Your task to perform on an android device: open a new tab in the chrome app Image 0: 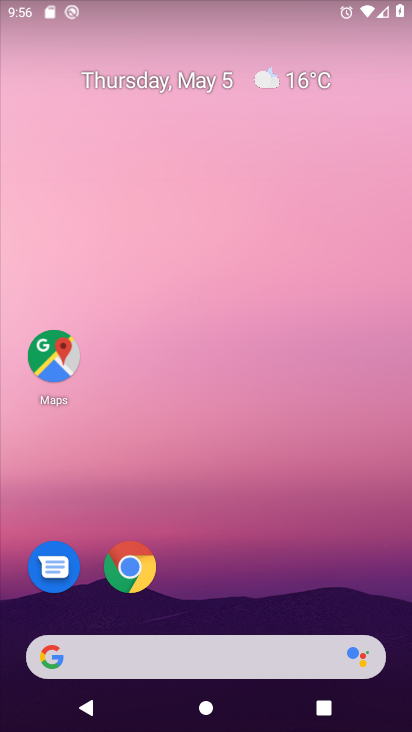
Step 0: drag from (259, 581) to (224, 23)
Your task to perform on an android device: open a new tab in the chrome app Image 1: 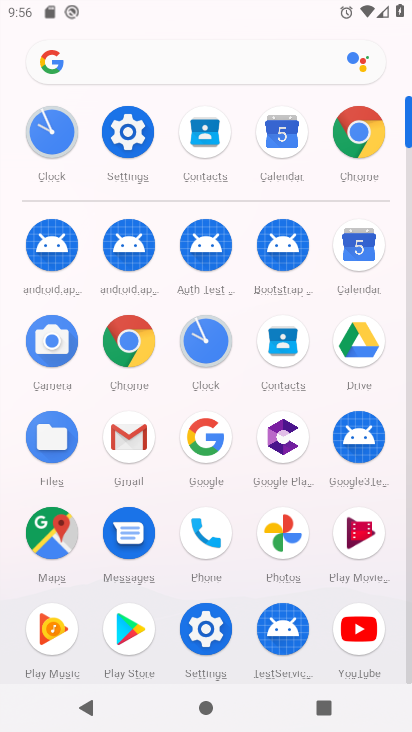
Step 1: click (349, 133)
Your task to perform on an android device: open a new tab in the chrome app Image 2: 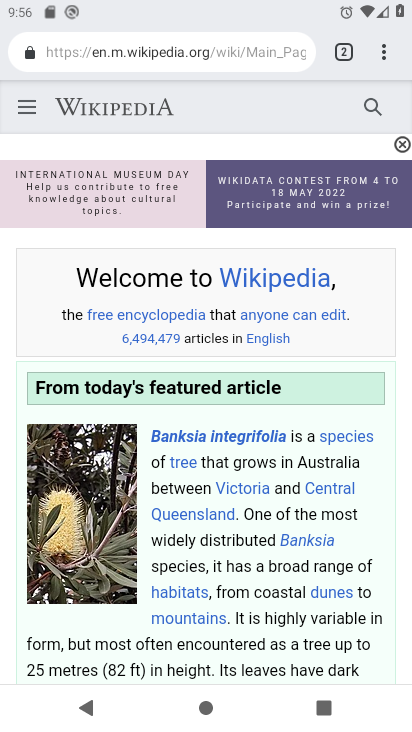
Step 2: click (379, 42)
Your task to perform on an android device: open a new tab in the chrome app Image 3: 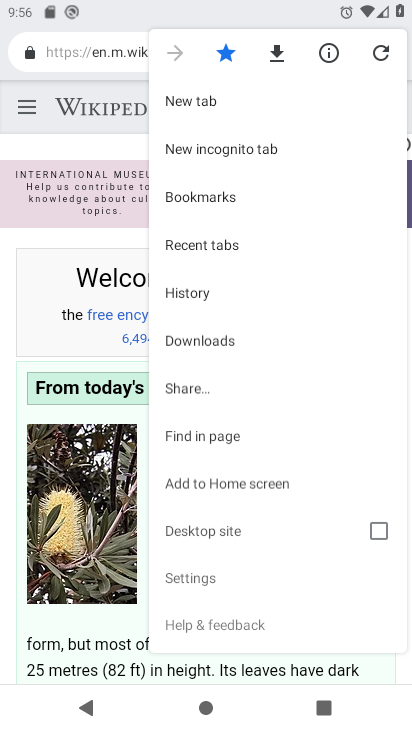
Step 3: click (382, 50)
Your task to perform on an android device: open a new tab in the chrome app Image 4: 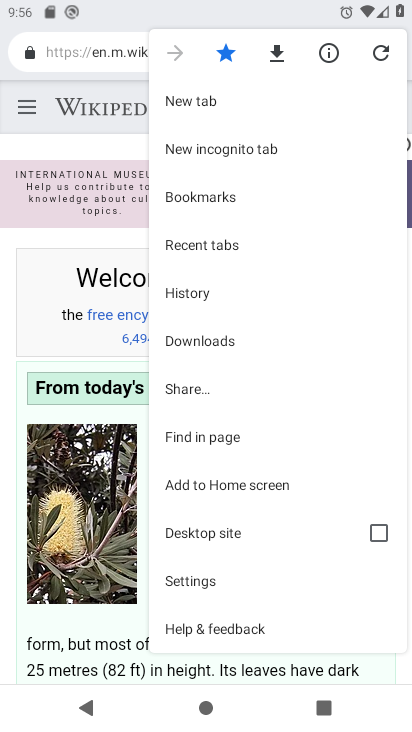
Step 4: click (273, 98)
Your task to perform on an android device: open a new tab in the chrome app Image 5: 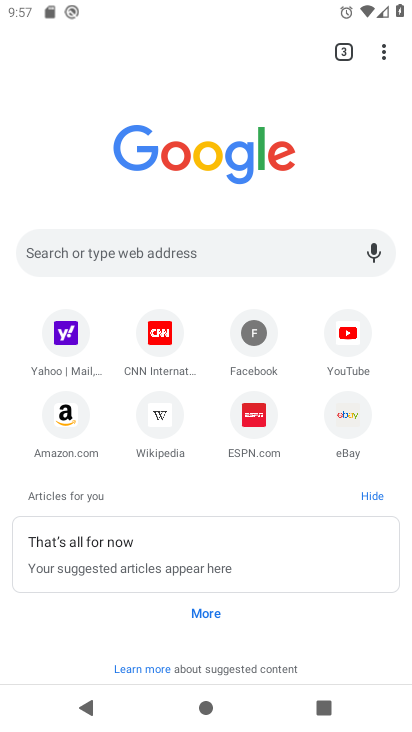
Step 5: task complete